Your task to perform on an android device: Search for sushi restaurants on Maps Image 0: 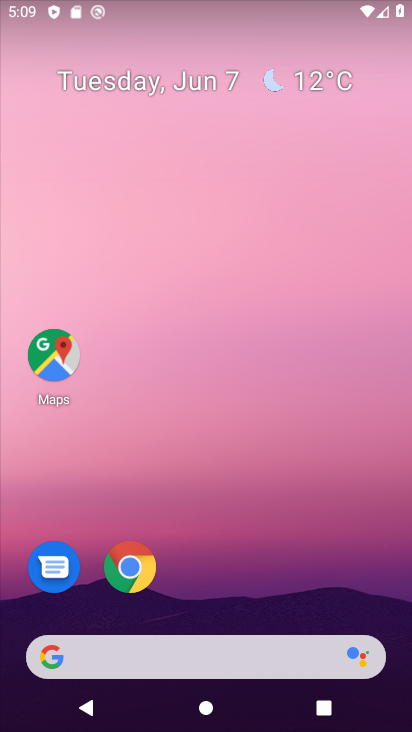
Step 0: drag from (200, 572) to (2, 70)
Your task to perform on an android device: Search for sushi restaurants on Maps Image 1: 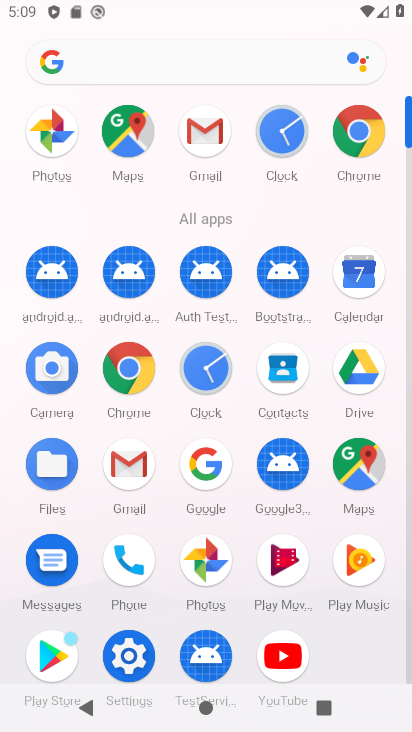
Step 1: drag from (5, 564) to (13, 191)
Your task to perform on an android device: Search for sushi restaurants on Maps Image 2: 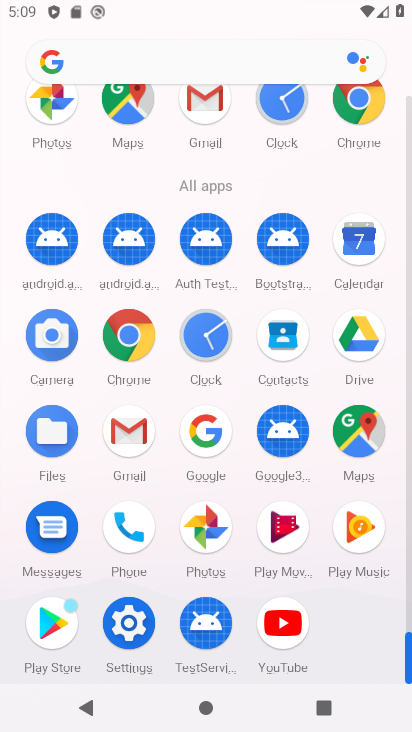
Step 2: click (356, 428)
Your task to perform on an android device: Search for sushi restaurants on Maps Image 3: 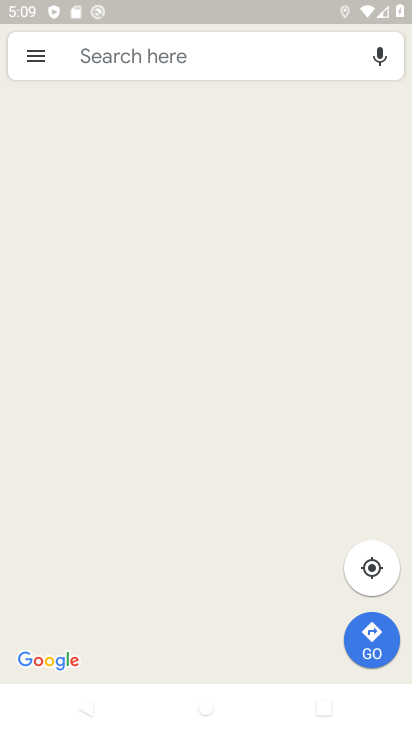
Step 3: click (212, 56)
Your task to perform on an android device: Search for sushi restaurants on Maps Image 4: 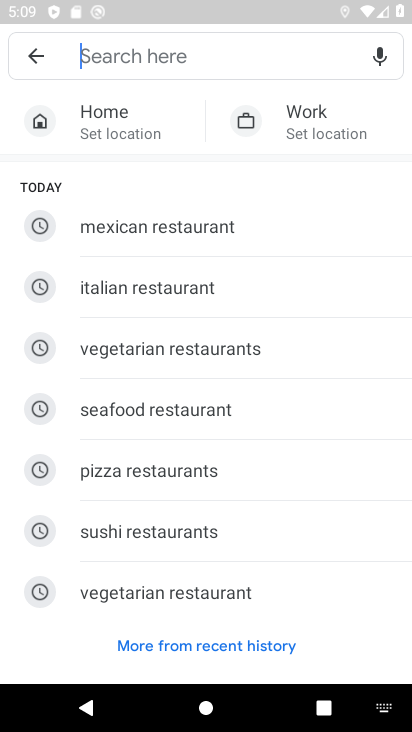
Step 4: type "sushi restaurants"
Your task to perform on an android device: Search for sushi restaurants on Maps Image 5: 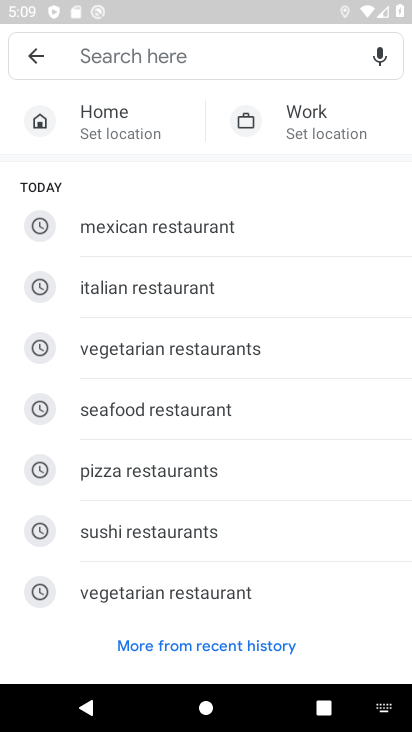
Step 5: click (123, 517)
Your task to perform on an android device: Search for sushi restaurants on Maps Image 6: 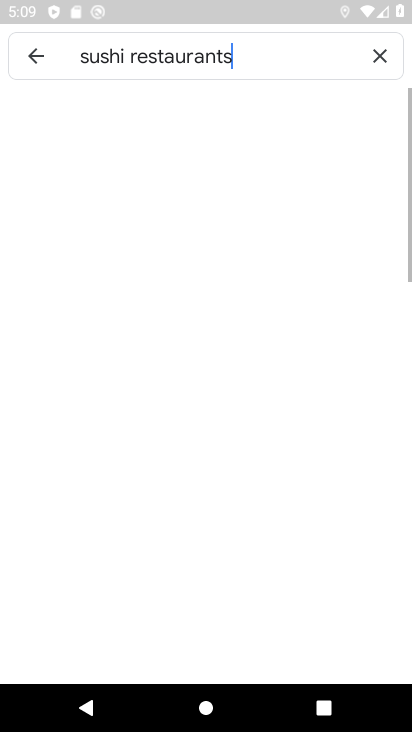
Step 6: click (127, 521)
Your task to perform on an android device: Search for sushi restaurants on Maps Image 7: 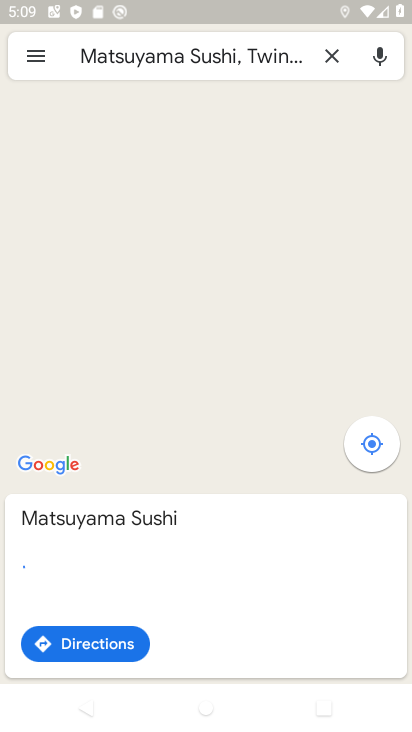
Step 7: click (330, 52)
Your task to perform on an android device: Search for sushi restaurants on Maps Image 8: 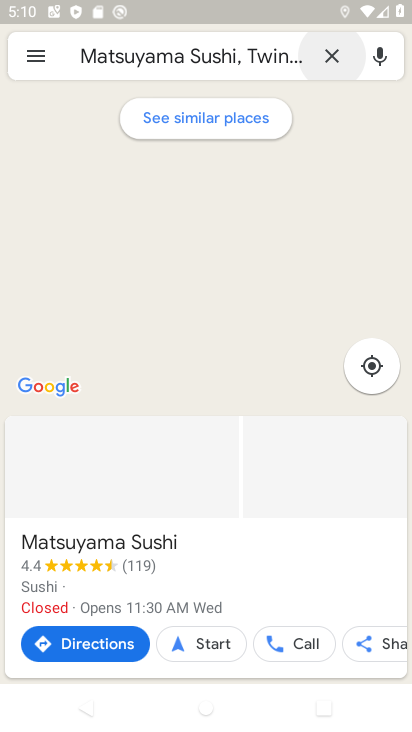
Step 8: click (327, 52)
Your task to perform on an android device: Search for sushi restaurants on Maps Image 9: 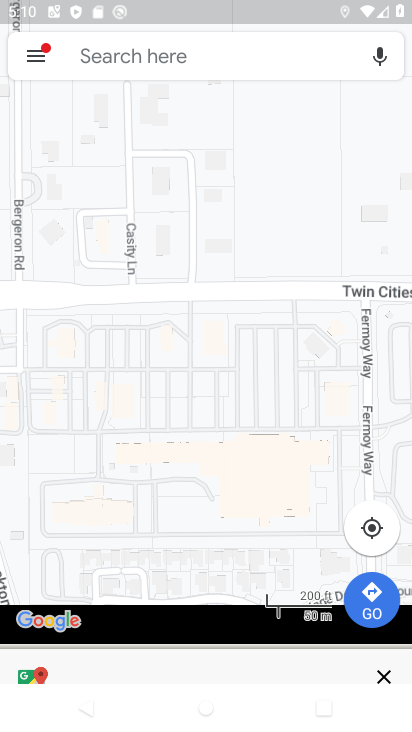
Step 9: click (238, 59)
Your task to perform on an android device: Search for sushi restaurants on Maps Image 10: 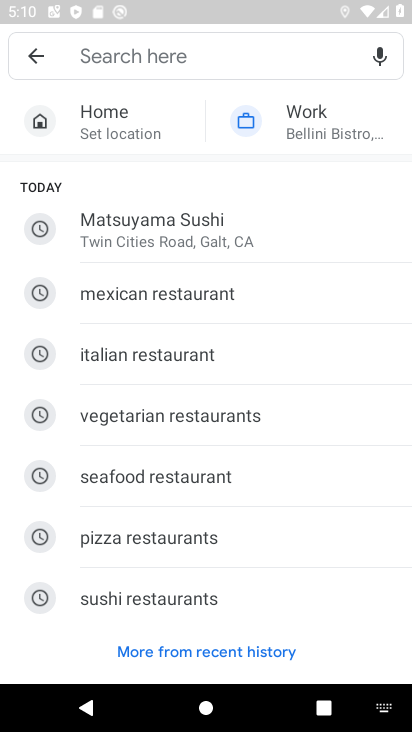
Step 10: click (137, 587)
Your task to perform on an android device: Search for sushi restaurants on Maps Image 11: 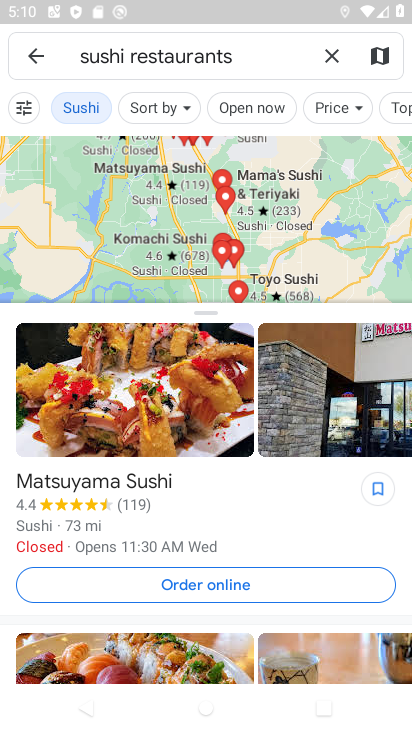
Step 11: task complete